Your task to perform on an android device: clear history in the chrome app Image 0: 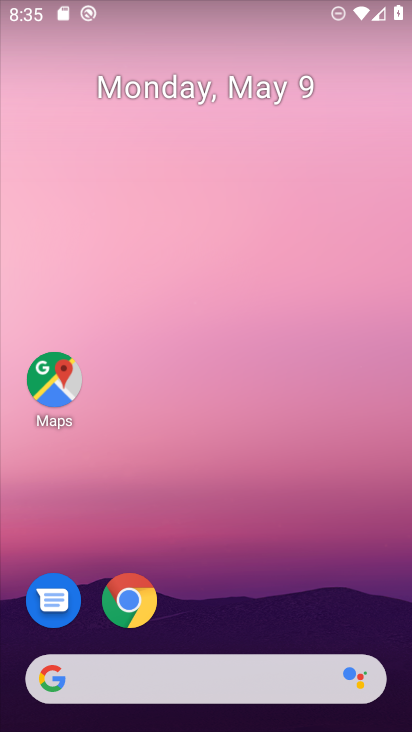
Step 0: drag from (295, 551) to (250, 46)
Your task to perform on an android device: clear history in the chrome app Image 1: 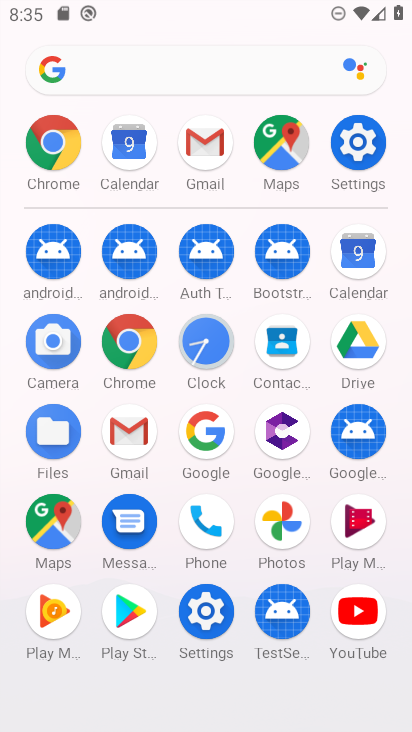
Step 1: drag from (0, 530) to (13, 266)
Your task to perform on an android device: clear history in the chrome app Image 2: 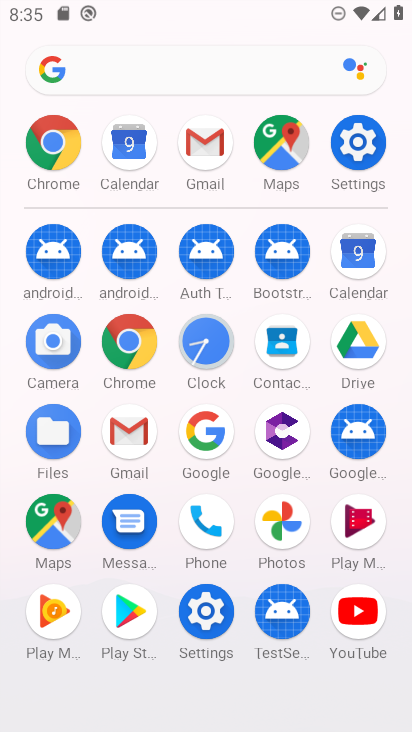
Step 2: click (126, 339)
Your task to perform on an android device: clear history in the chrome app Image 3: 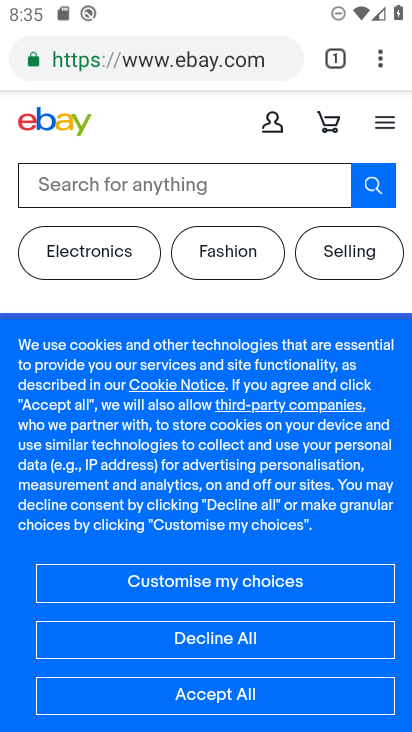
Step 3: drag from (380, 60) to (196, 328)
Your task to perform on an android device: clear history in the chrome app Image 4: 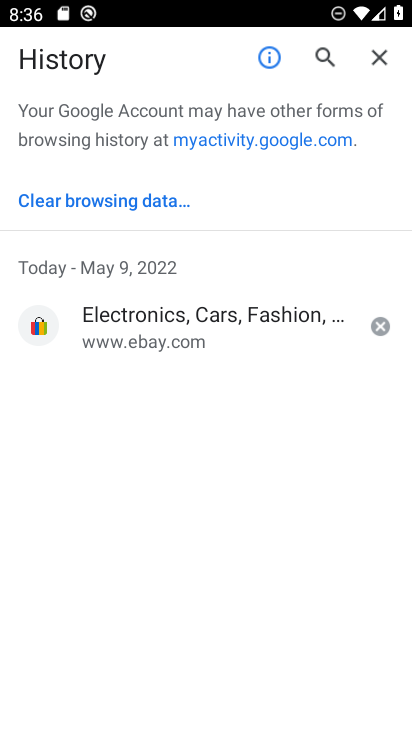
Step 4: click (133, 191)
Your task to perform on an android device: clear history in the chrome app Image 5: 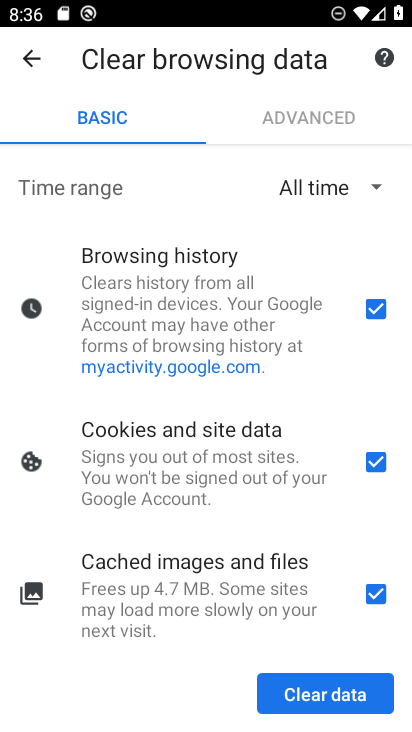
Step 5: click (334, 696)
Your task to perform on an android device: clear history in the chrome app Image 6: 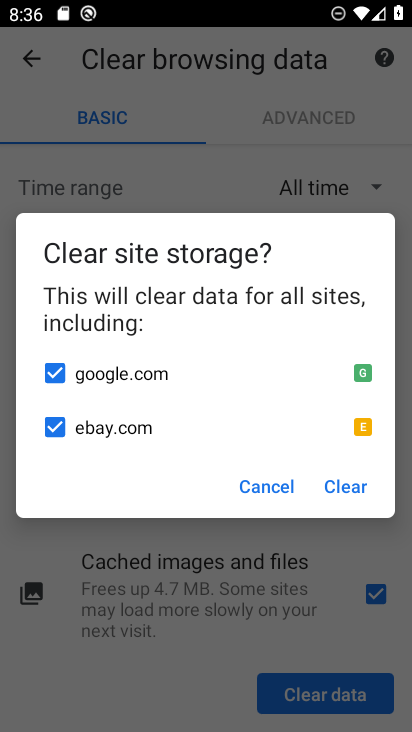
Step 6: click (324, 485)
Your task to perform on an android device: clear history in the chrome app Image 7: 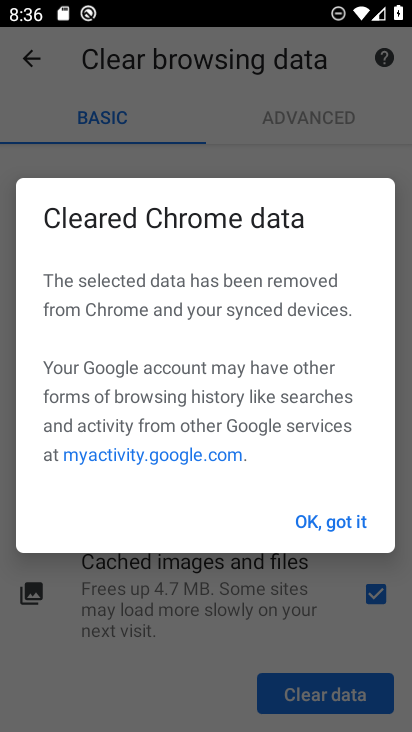
Step 7: click (335, 507)
Your task to perform on an android device: clear history in the chrome app Image 8: 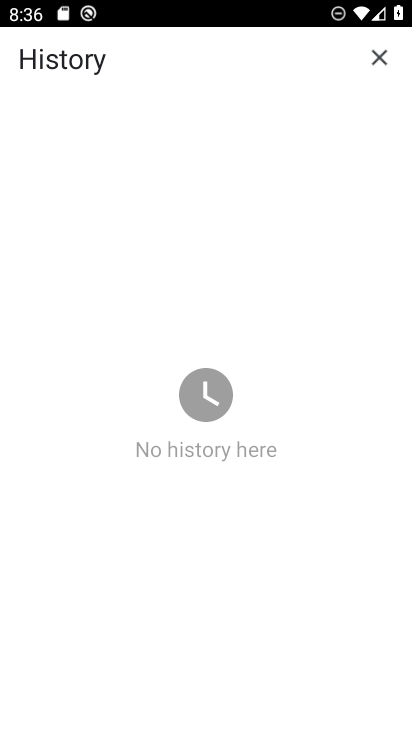
Step 8: task complete